Your task to perform on an android device: find snoozed emails in the gmail app Image 0: 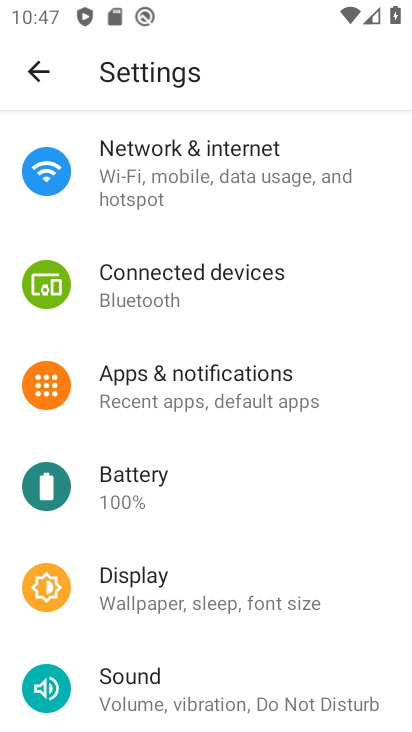
Step 0: press home button
Your task to perform on an android device: find snoozed emails in the gmail app Image 1: 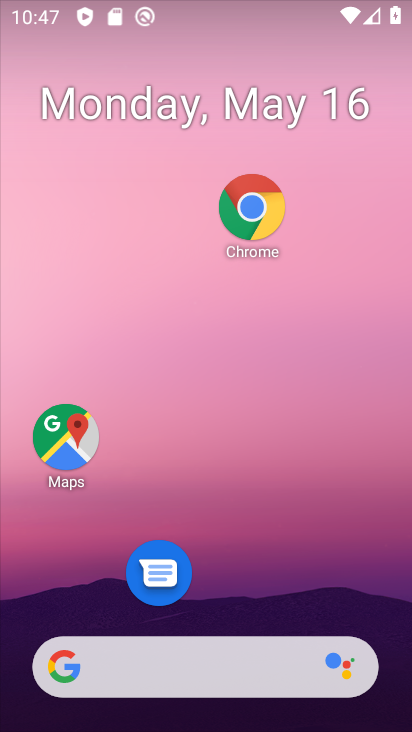
Step 1: drag from (276, 675) to (224, 101)
Your task to perform on an android device: find snoozed emails in the gmail app Image 2: 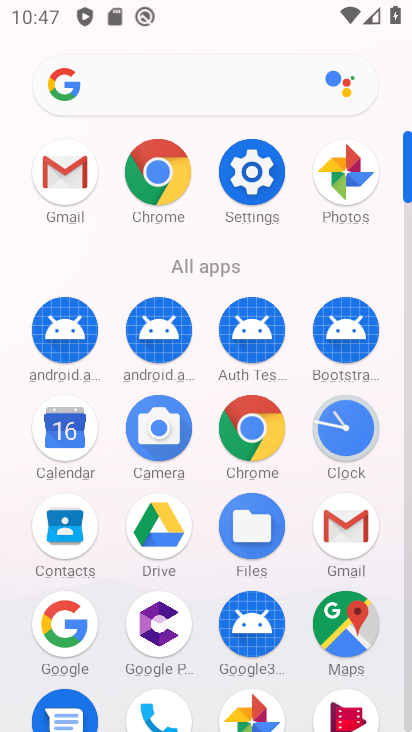
Step 2: click (342, 526)
Your task to perform on an android device: find snoozed emails in the gmail app Image 3: 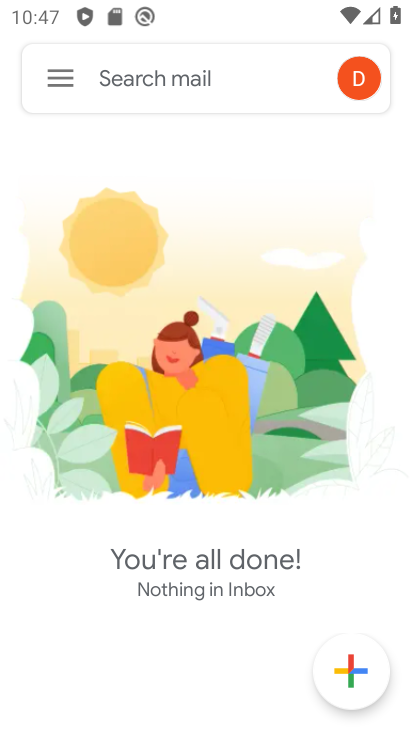
Step 3: click (68, 76)
Your task to perform on an android device: find snoozed emails in the gmail app Image 4: 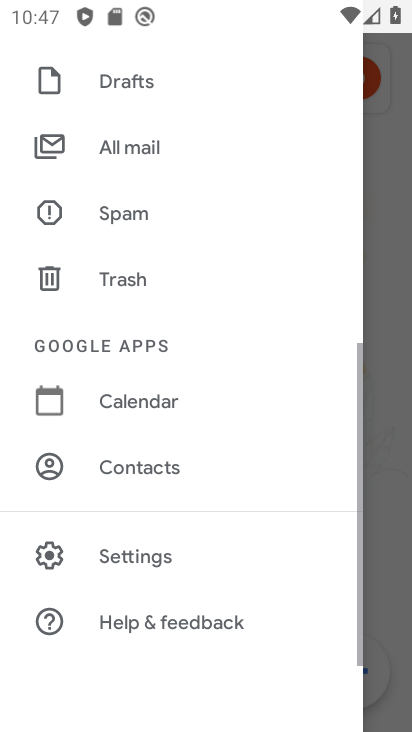
Step 4: drag from (201, 226) to (196, 624)
Your task to perform on an android device: find snoozed emails in the gmail app Image 5: 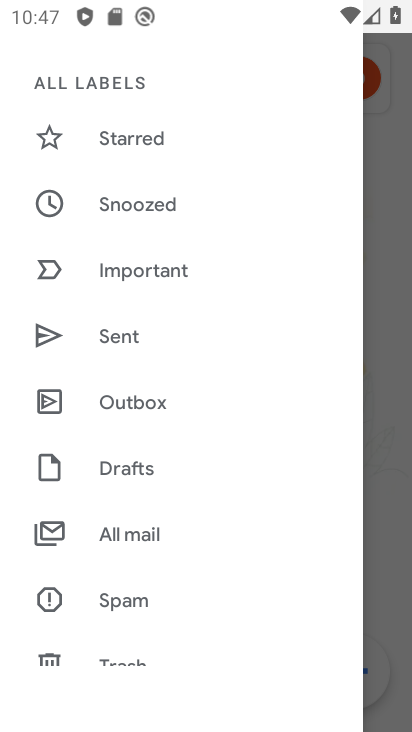
Step 5: click (149, 219)
Your task to perform on an android device: find snoozed emails in the gmail app Image 6: 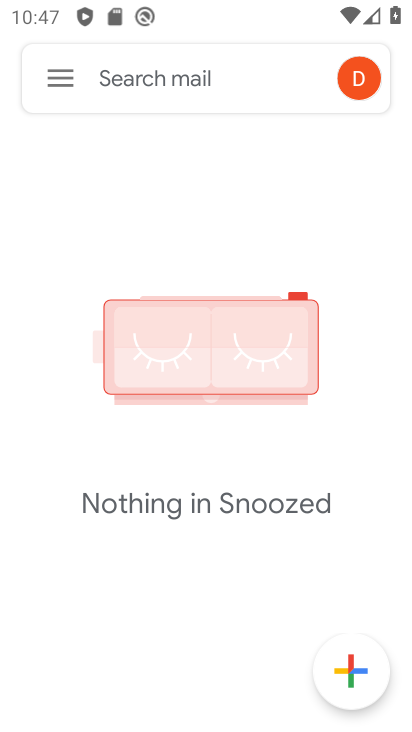
Step 6: task complete